Your task to perform on an android device: toggle location history Image 0: 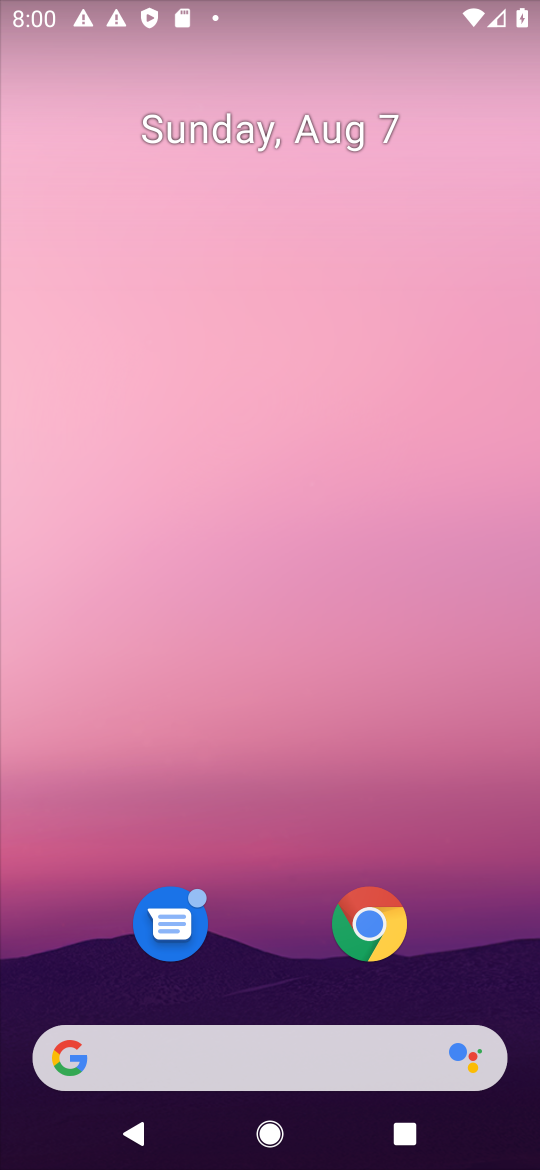
Step 0: drag from (300, 804) to (362, 289)
Your task to perform on an android device: toggle location history Image 1: 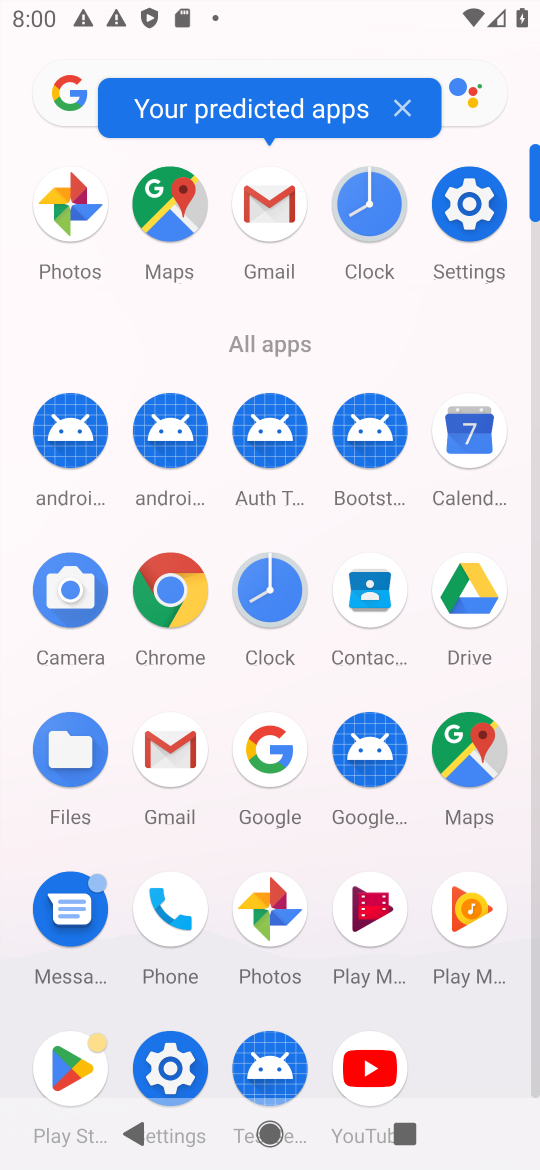
Step 1: click (466, 206)
Your task to perform on an android device: toggle location history Image 2: 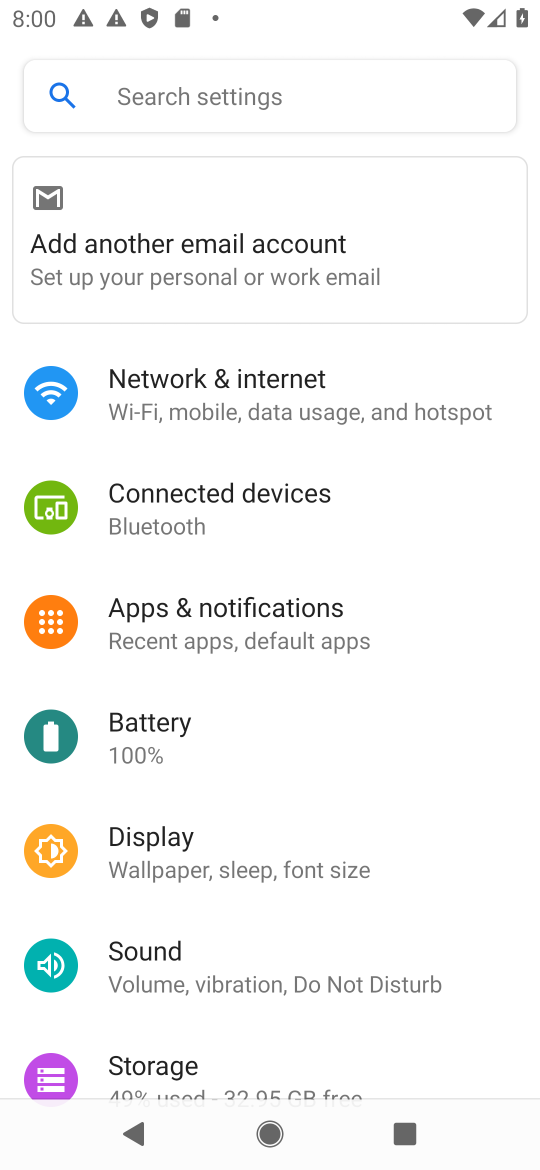
Step 2: drag from (295, 962) to (313, 579)
Your task to perform on an android device: toggle location history Image 3: 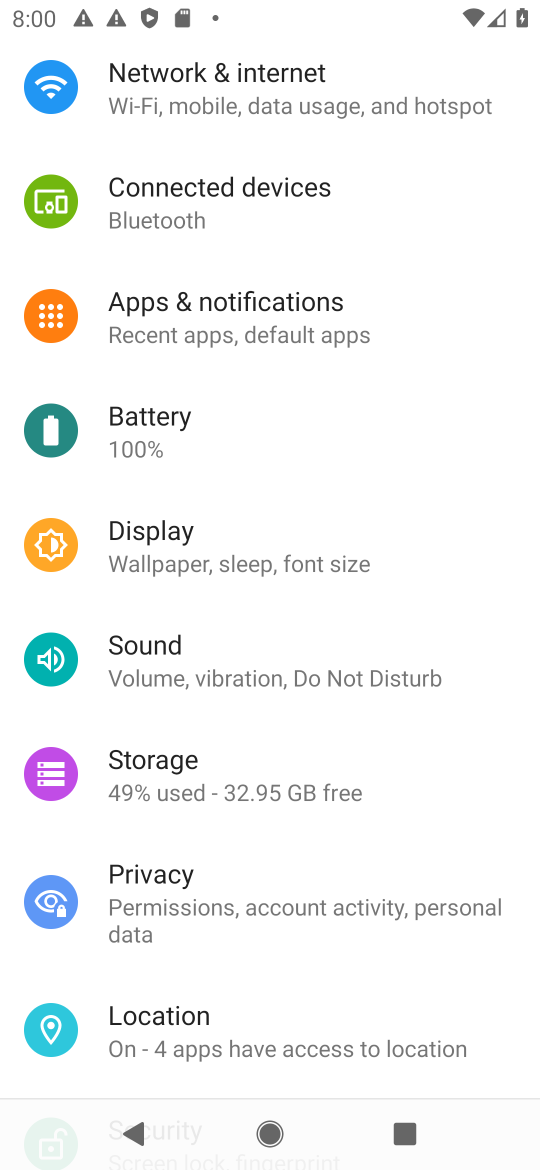
Step 3: click (259, 1029)
Your task to perform on an android device: toggle location history Image 4: 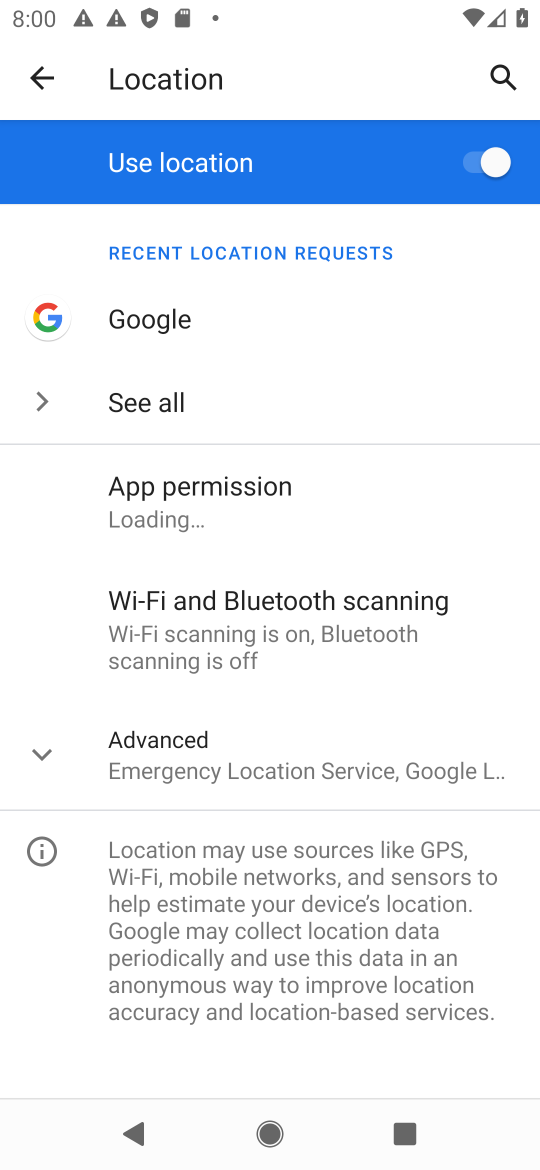
Step 4: task complete